Your task to perform on an android device: Check the news Image 0: 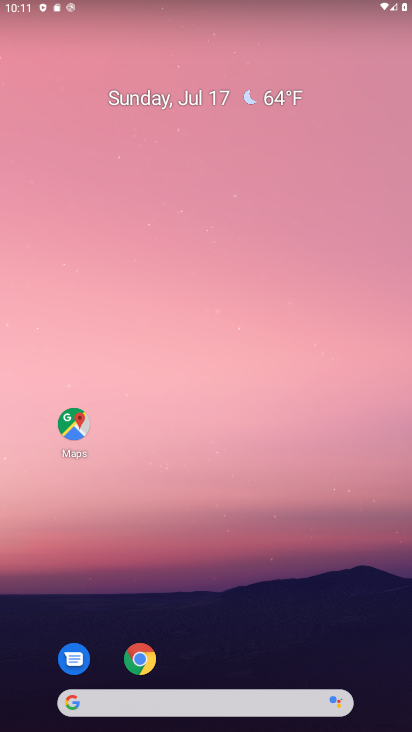
Step 0: drag from (24, 316) to (410, 329)
Your task to perform on an android device: Check the news Image 1: 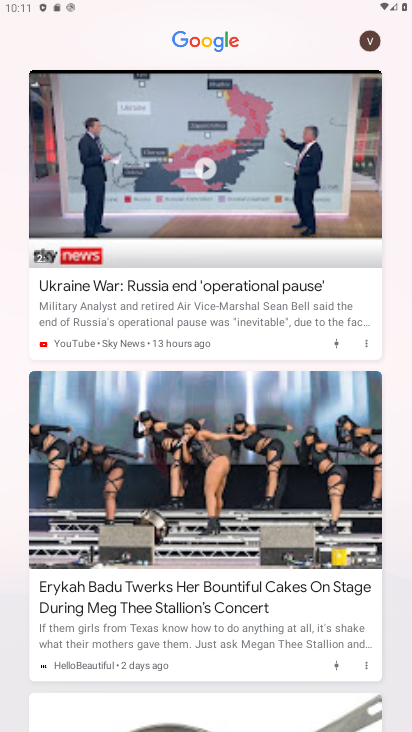
Step 1: task complete